Your task to perform on an android device: open sync settings in chrome Image 0: 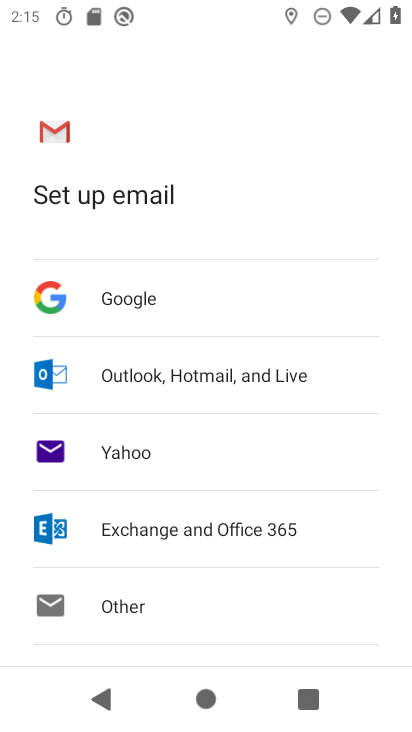
Step 0: press home button
Your task to perform on an android device: open sync settings in chrome Image 1: 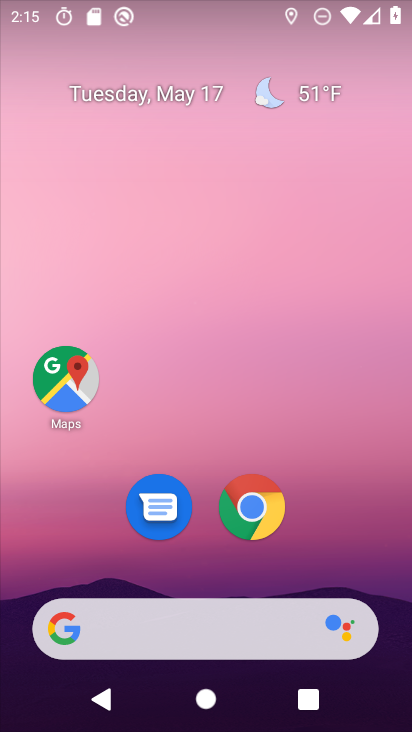
Step 1: click (255, 509)
Your task to perform on an android device: open sync settings in chrome Image 2: 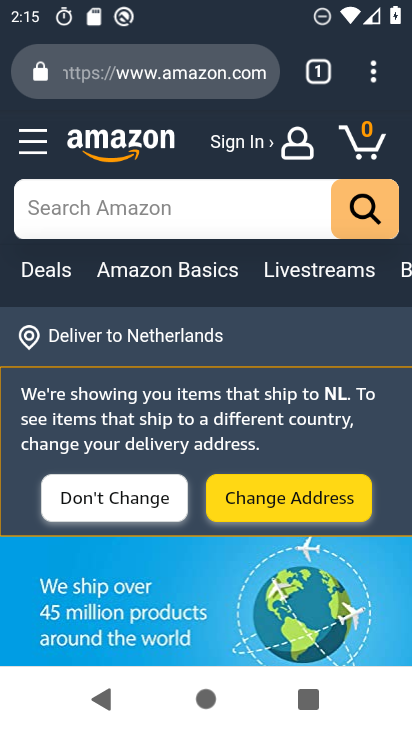
Step 2: click (368, 73)
Your task to perform on an android device: open sync settings in chrome Image 3: 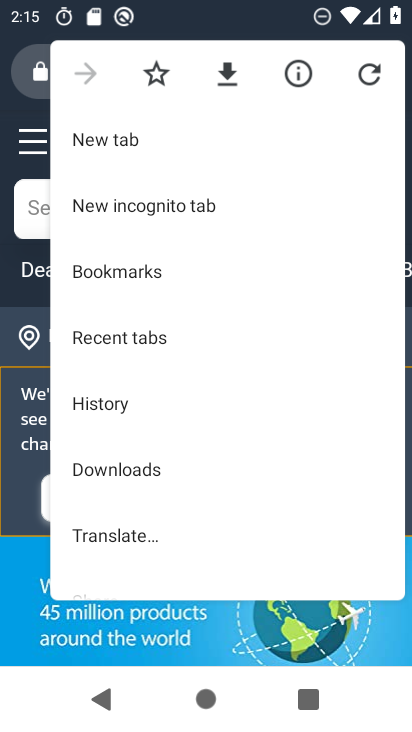
Step 3: drag from (214, 530) to (239, 155)
Your task to perform on an android device: open sync settings in chrome Image 4: 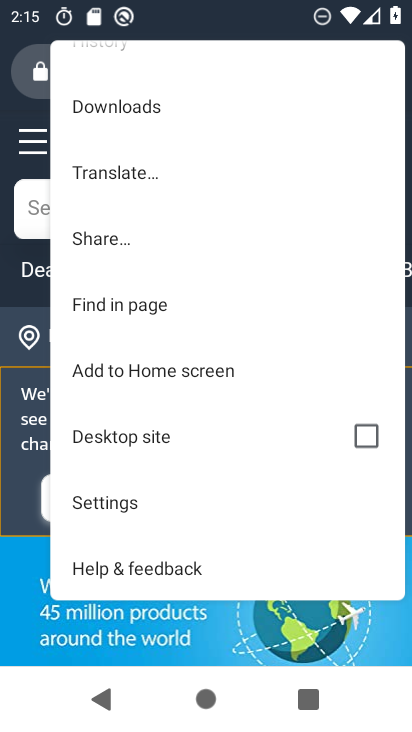
Step 4: click (149, 498)
Your task to perform on an android device: open sync settings in chrome Image 5: 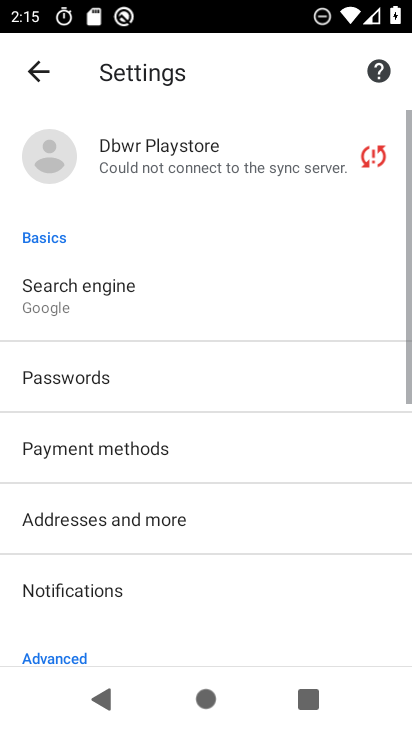
Step 5: drag from (247, 594) to (251, 114)
Your task to perform on an android device: open sync settings in chrome Image 6: 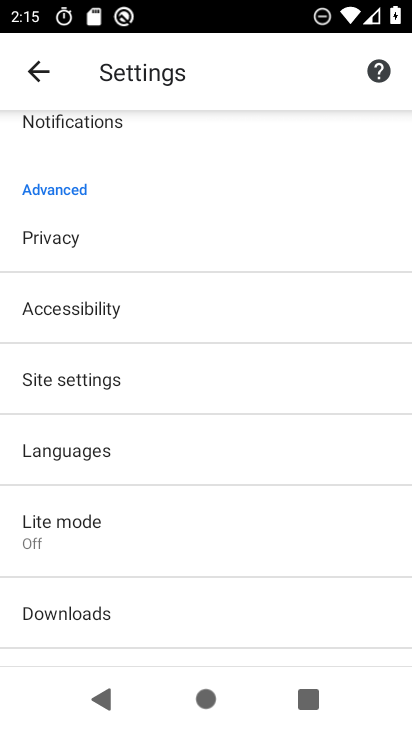
Step 6: click (109, 376)
Your task to perform on an android device: open sync settings in chrome Image 7: 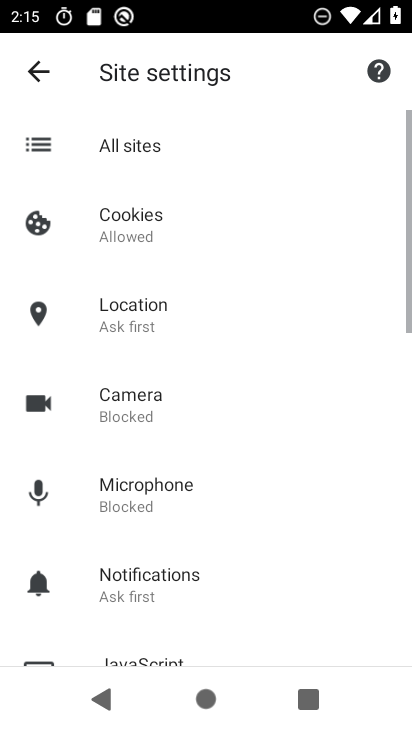
Step 7: drag from (253, 545) to (255, 93)
Your task to perform on an android device: open sync settings in chrome Image 8: 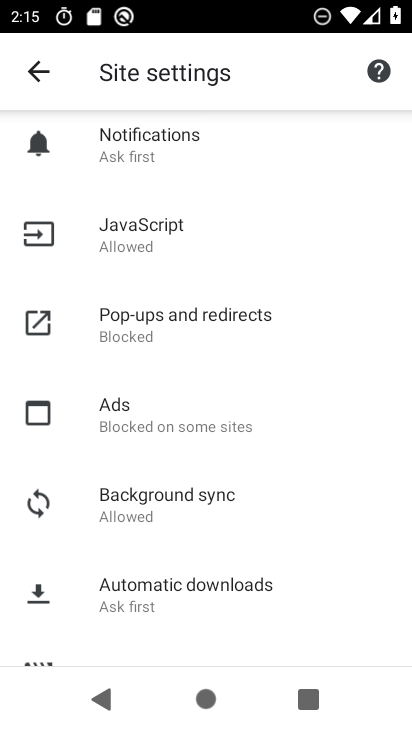
Step 8: click (192, 499)
Your task to perform on an android device: open sync settings in chrome Image 9: 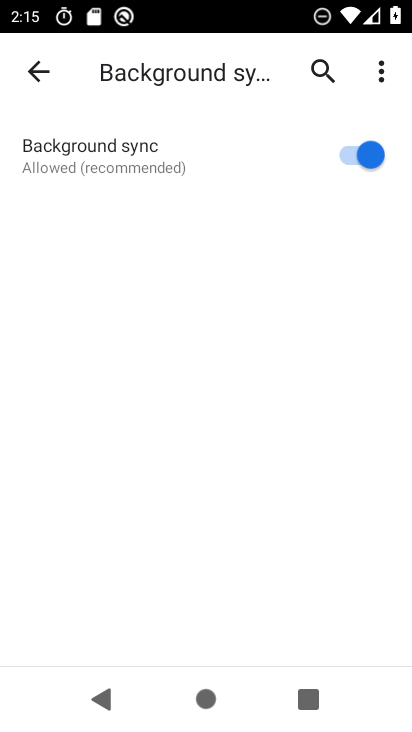
Step 9: task complete